Your task to perform on an android device: Open wifi settings Image 0: 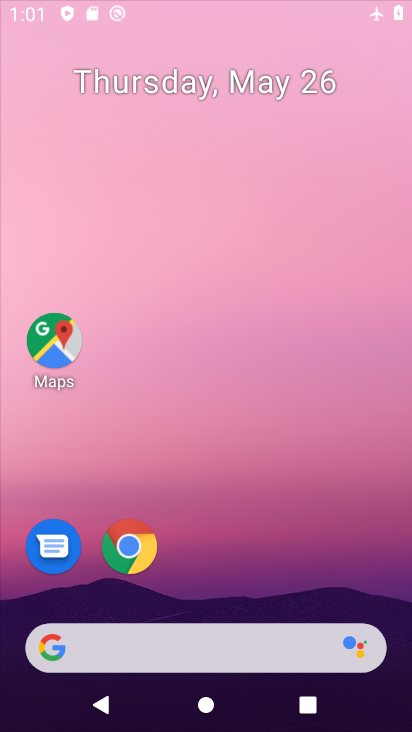
Step 0: click (204, 90)
Your task to perform on an android device: Open wifi settings Image 1: 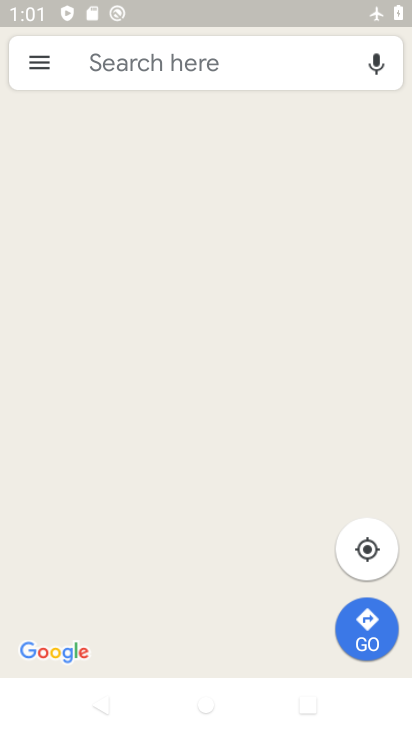
Step 1: press home button
Your task to perform on an android device: Open wifi settings Image 2: 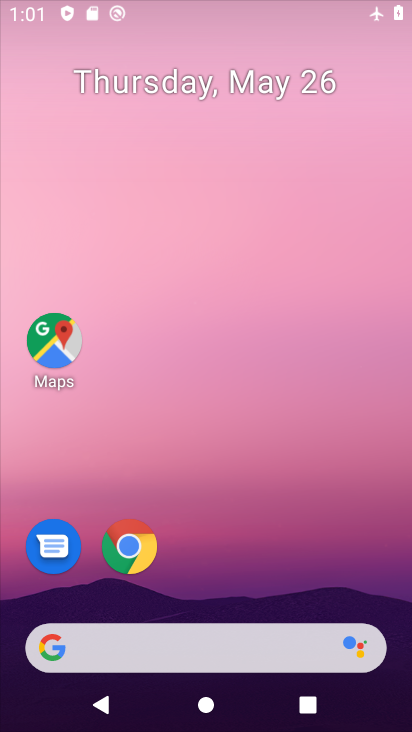
Step 2: drag from (268, 584) to (212, 52)
Your task to perform on an android device: Open wifi settings Image 3: 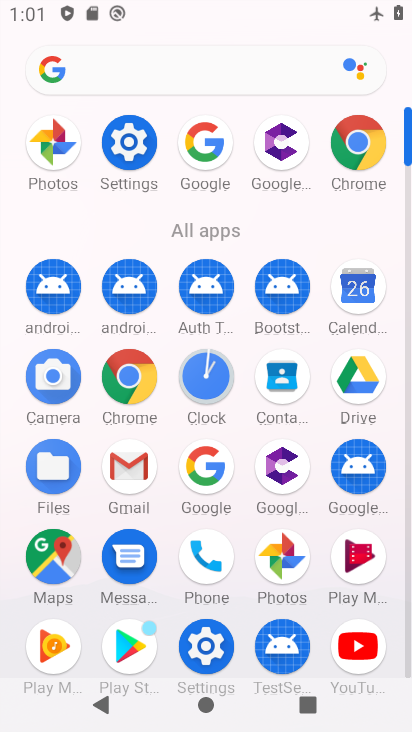
Step 3: click (129, 144)
Your task to perform on an android device: Open wifi settings Image 4: 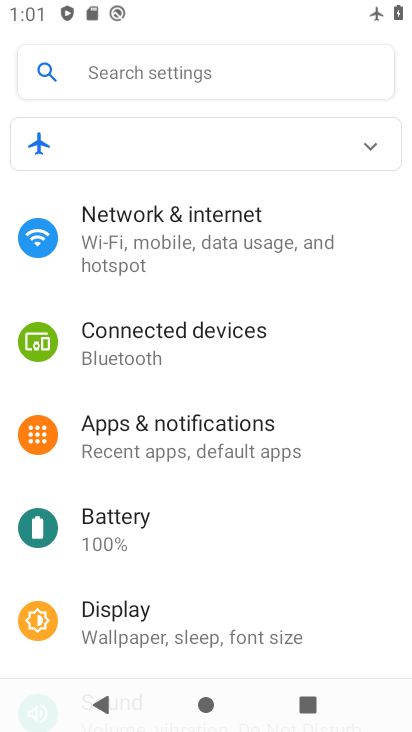
Step 4: drag from (237, 571) to (244, 728)
Your task to perform on an android device: Open wifi settings Image 5: 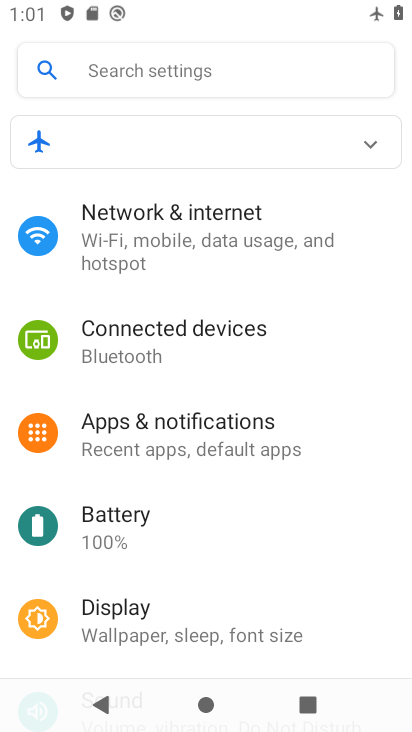
Step 5: click (177, 250)
Your task to perform on an android device: Open wifi settings Image 6: 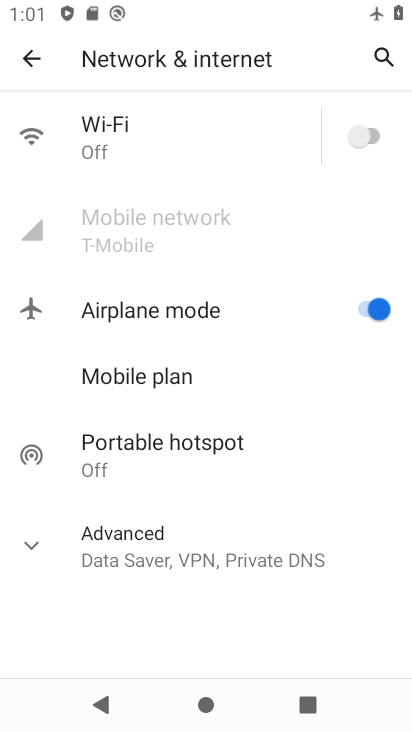
Step 6: click (354, 132)
Your task to perform on an android device: Open wifi settings Image 7: 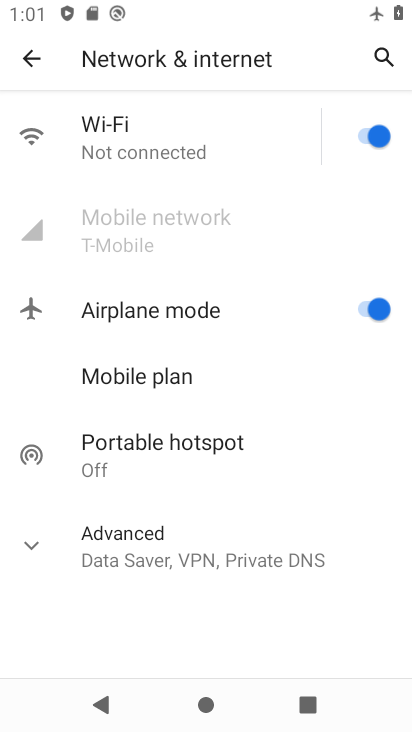
Step 7: click (365, 134)
Your task to perform on an android device: Open wifi settings Image 8: 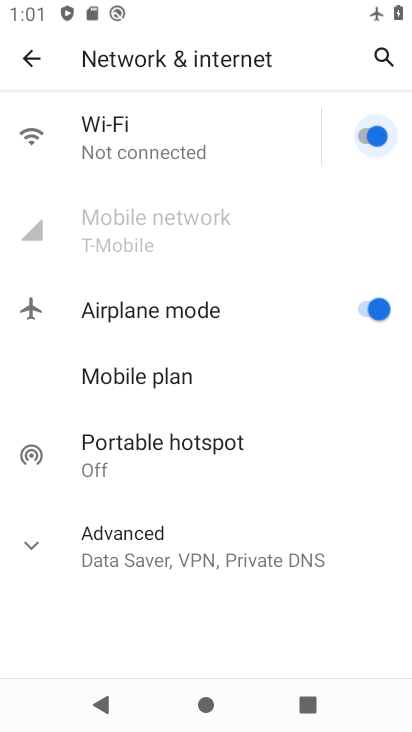
Step 8: click (234, 142)
Your task to perform on an android device: Open wifi settings Image 9: 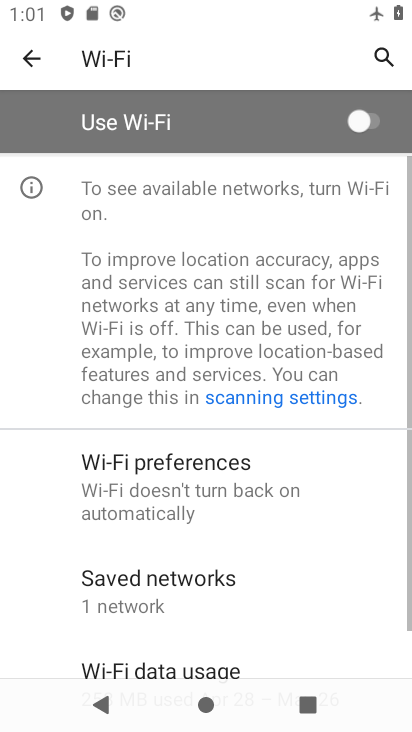
Step 9: task complete